Your task to perform on an android device: empty trash in the gmail app Image 0: 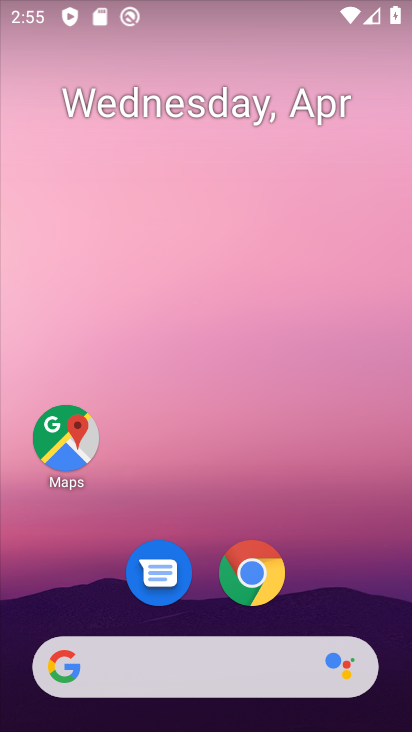
Step 0: drag from (222, 724) to (223, 101)
Your task to perform on an android device: empty trash in the gmail app Image 1: 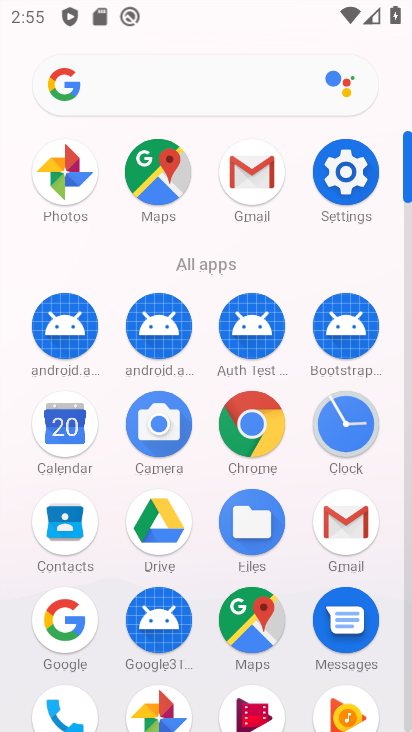
Step 1: click (250, 171)
Your task to perform on an android device: empty trash in the gmail app Image 2: 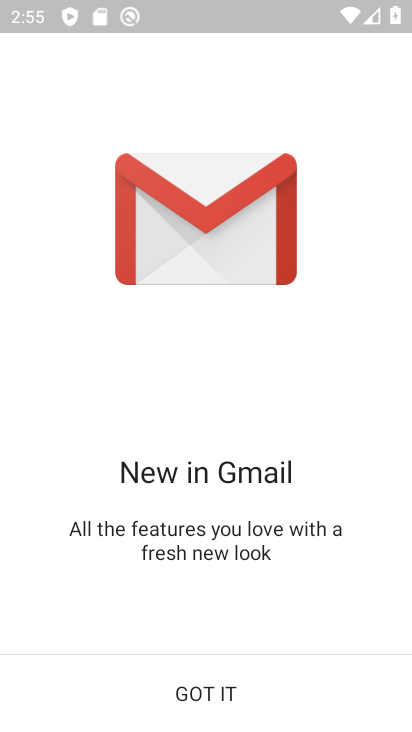
Step 2: click (202, 687)
Your task to perform on an android device: empty trash in the gmail app Image 3: 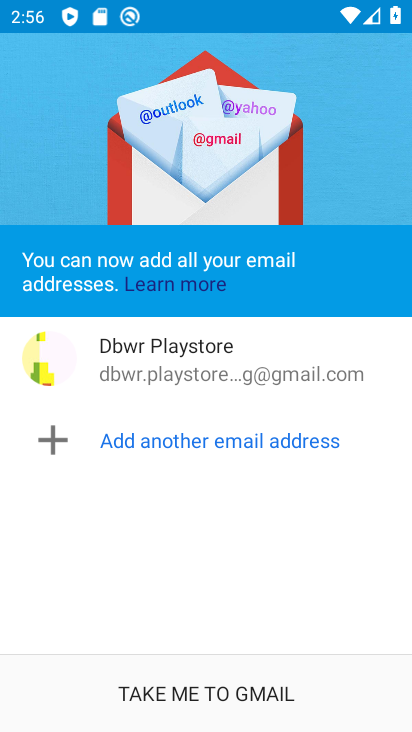
Step 3: click (218, 689)
Your task to perform on an android device: empty trash in the gmail app Image 4: 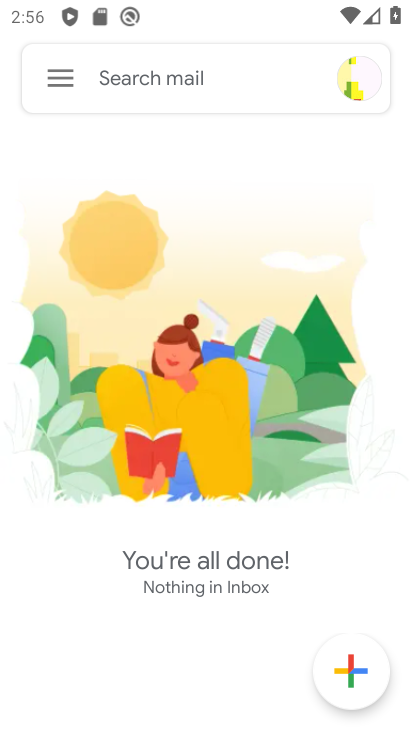
Step 4: click (59, 78)
Your task to perform on an android device: empty trash in the gmail app Image 5: 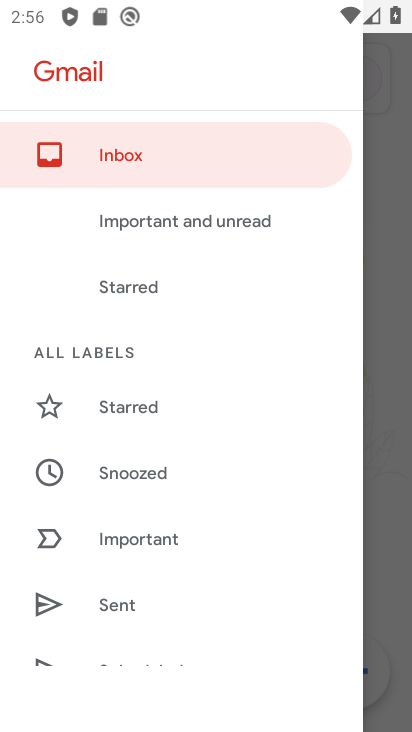
Step 5: drag from (134, 635) to (147, 225)
Your task to perform on an android device: empty trash in the gmail app Image 6: 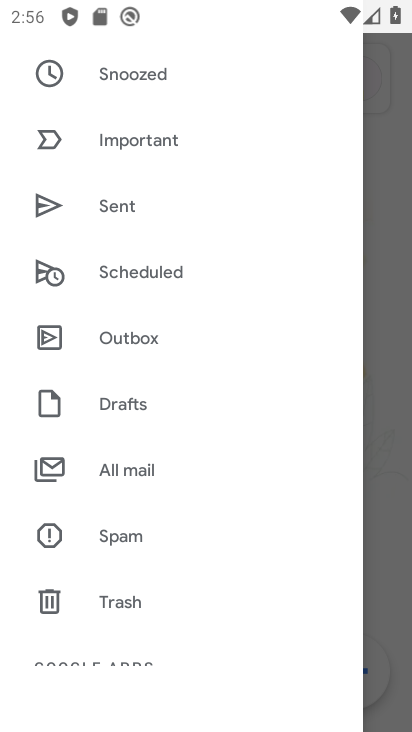
Step 6: click (117, 599)
Your task to perform on an android device: empty trash in the gmail app Image 7: 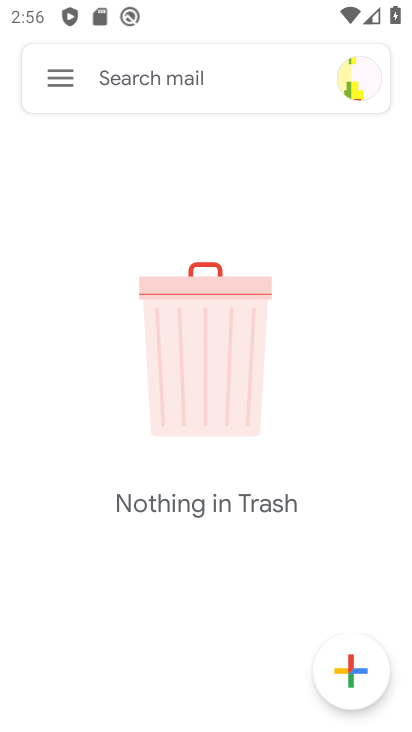
Step 7: task complete